Your task to perform on an android device: turn on wifi Image 0: 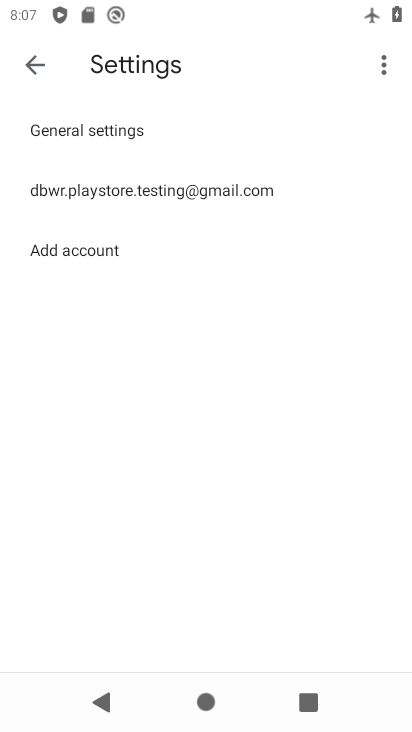
Step 0: press home button
Your task to perform on an android device: turn on wifi Image 1: 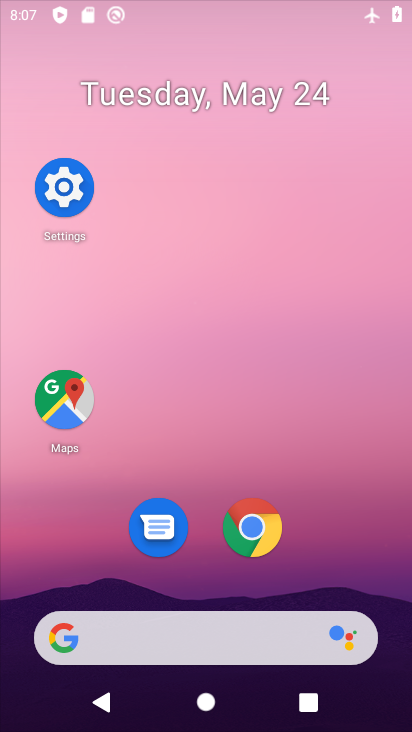
Step 1: click (67, 177)
Your task to perform on an android device: turn on wifi Image 2: 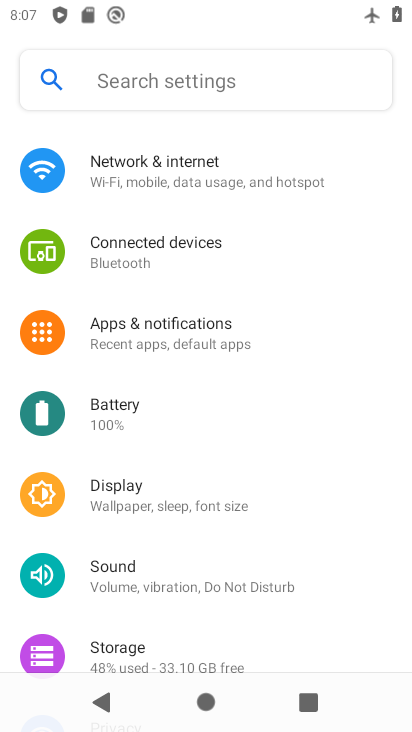
Step 2: drag from (215, 296) to (212, 436)
Your task to perform on an android device: turn on wifi Image 3: 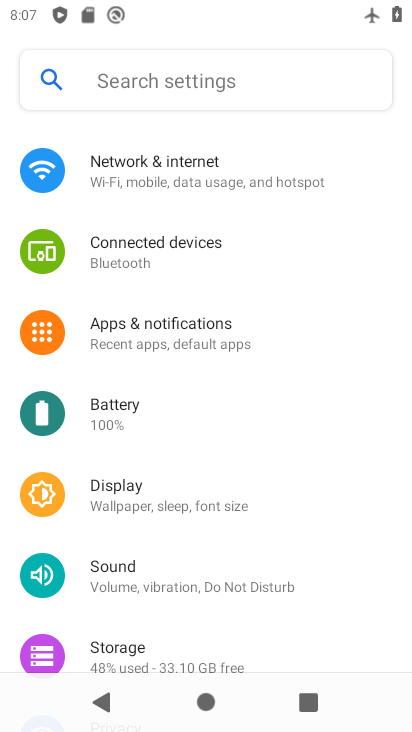
Step 3: click (248, 174)
Your task to perform on an android device: turn on wifi Image 4: 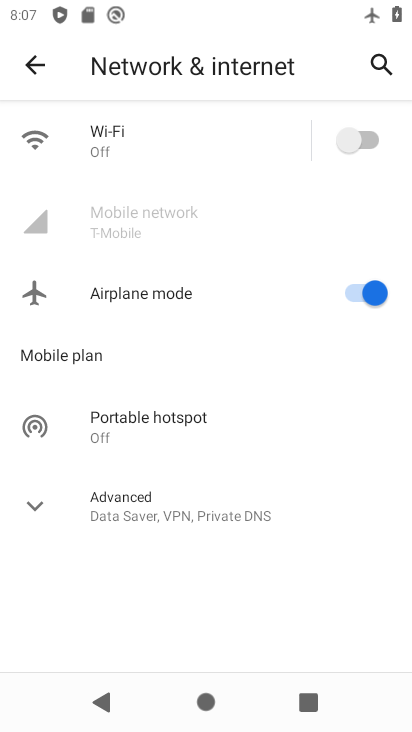
Step 4: click (346, 140)
Your task to perform on an android device: turn on wifi Image 5: 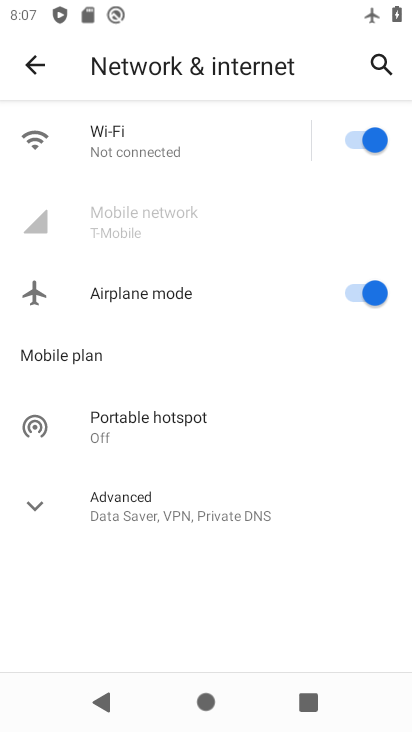
Step 5: task complete